Your task to perform on an android device: set default search engine in the chrome app Image 0: 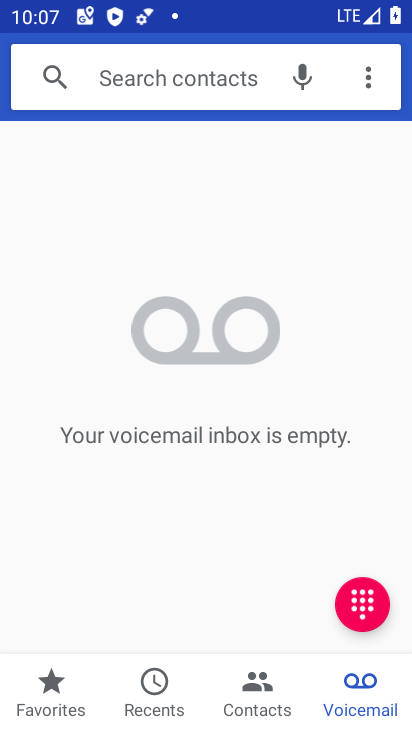
Step 0: press home button
Your task to perform on an android device: set default search engine in the chrome app Image 1: 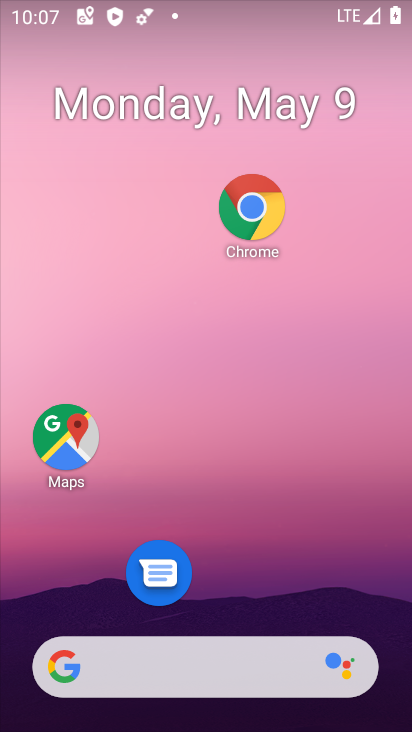
Step 1: drag from (302, 591) to (288, 107)
Your task to perform on an android device: set default search engine in the chrome app Image 2: 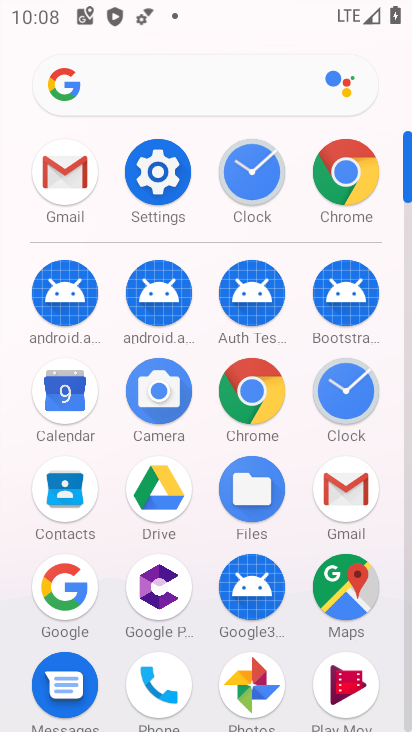
Step 2: click (258, 391)
Your task to perform on an android device: set default search engine in the chrome app Image 3: 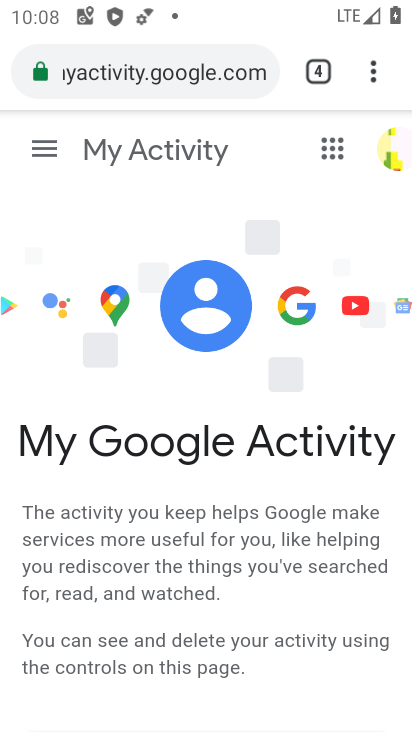
Step 3: click (374, 71)
Your task to perform on an android device: set default search engine in the chrome app Image 4: 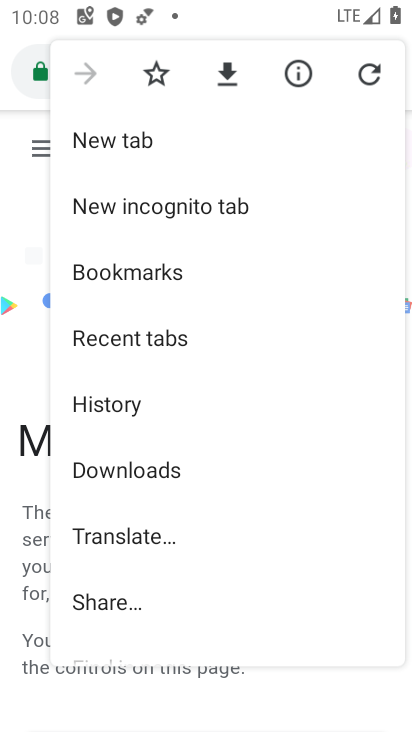
Step 4: drag from (260, 492) to (262, 237)
Your task to perform on an android device: set default search engine in the chrome app Image 5: 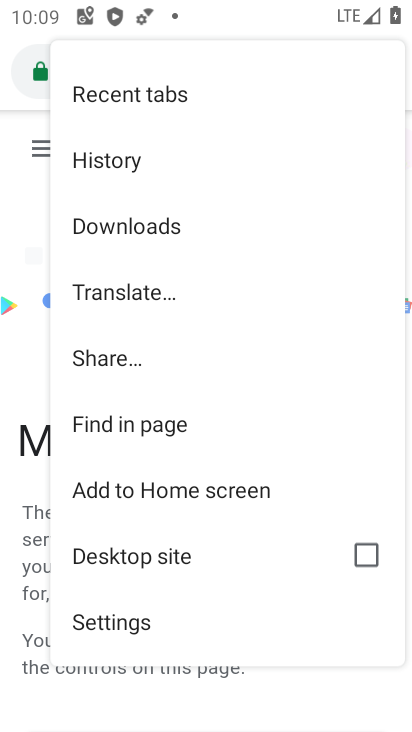
Step 5: click (151, 617)
Your task to perform on an android device: set default search engine in the chrome app Image 6: 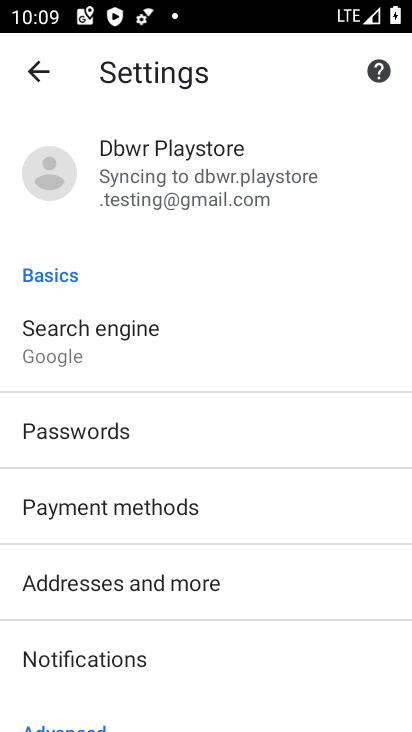
Step 6: click (141, 320)
Your task to perform on an android device: set default search engine in the chrome app Image 7: 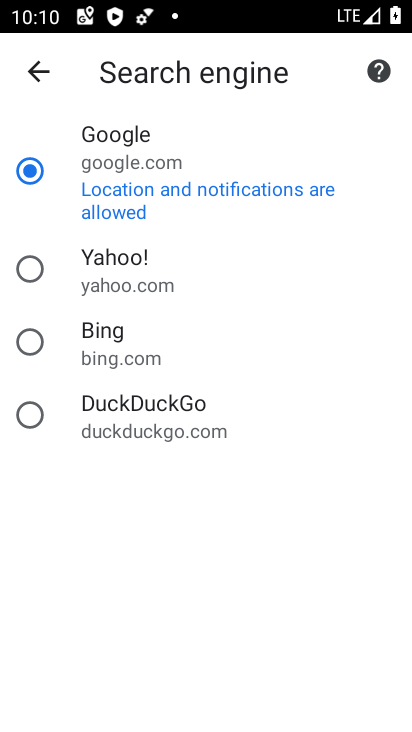
Step 7: task complete